Your task to perform on an android device: check android version Image 0: 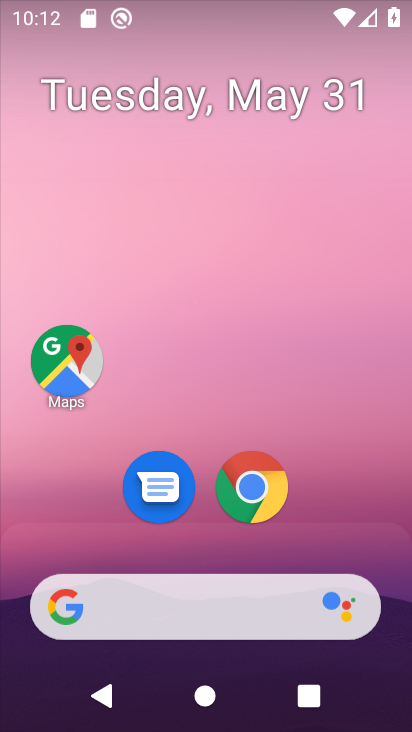
Step 0: drag from (76, 579) to (166, 73)
Your task to perform on an android device: check android version Image 1: 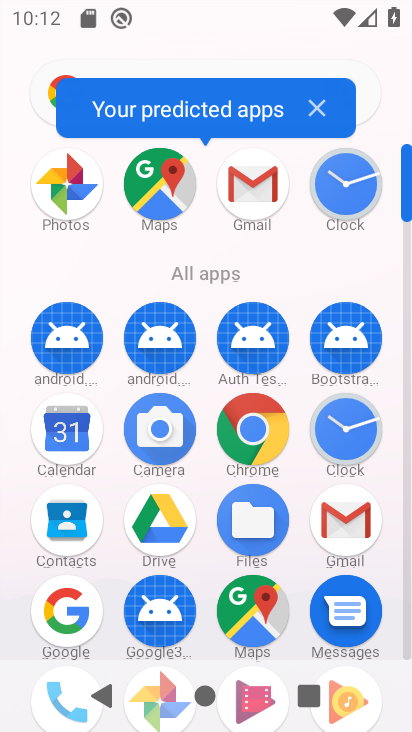
Step 1: drag from (106, 585) to (190, 280)
Your task to perform on an android device: check android version Image 2: 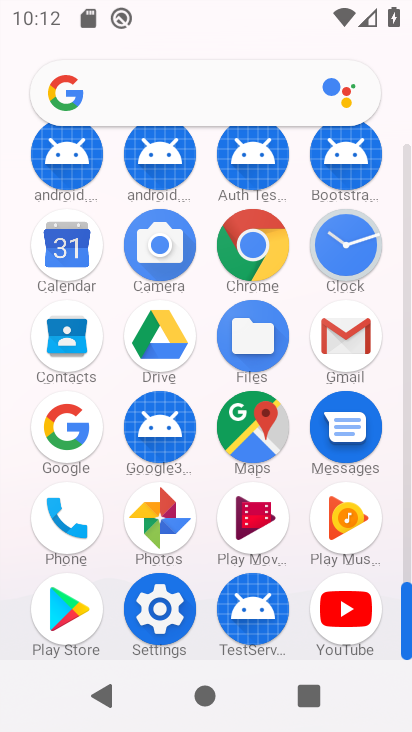
Step 2: click (172, 638)
Your task to perform on an android device: check android version Image 3: 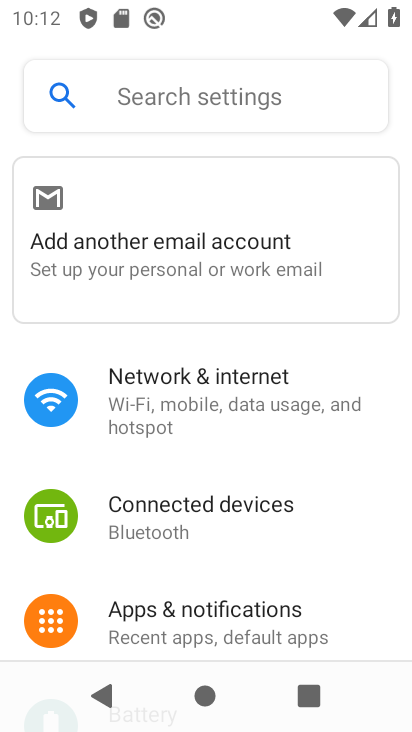
Step 3: drag from (178, 621) to (371, 96)
Your task to perform on an android device: check android version Image 4: 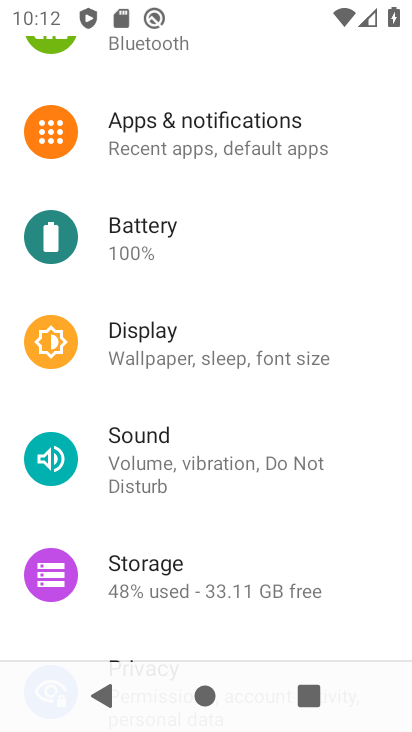
Step 4: drag from (250, 551) to (405, 15)
Your task to perform on an android device: check android version Image 5: 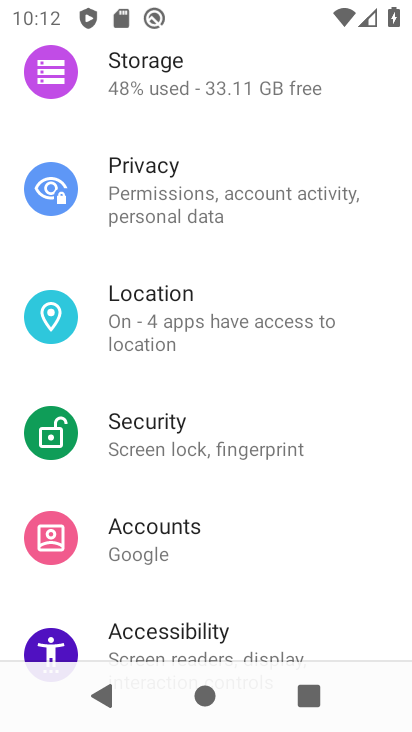
Step 5: drag from (112, 547) to (284, 10)
Your task to perform on an android device: check android version Image 6: 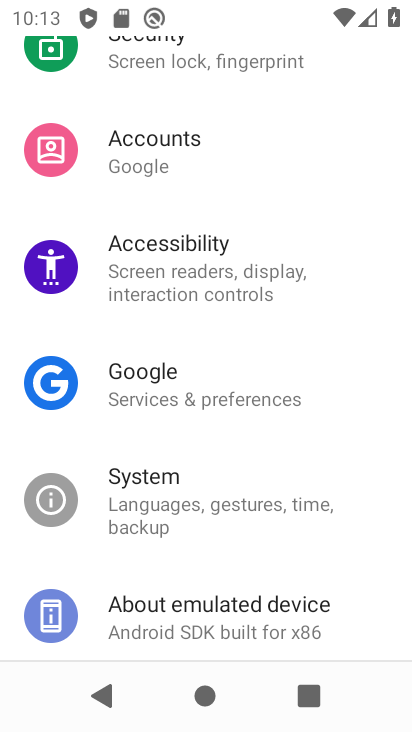
Step 6: click (171, 612)
Your task to perform on an android device: check android version Image 7: 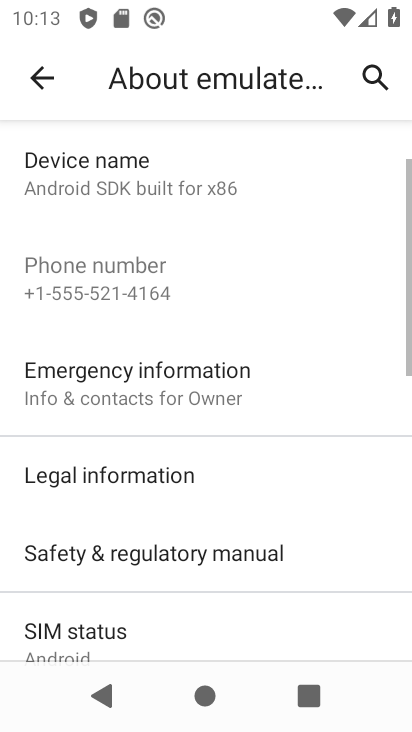
Step 7: drag from (171, 611) to (291, 134)
Your task to perform on an android device: check android version Image 8: 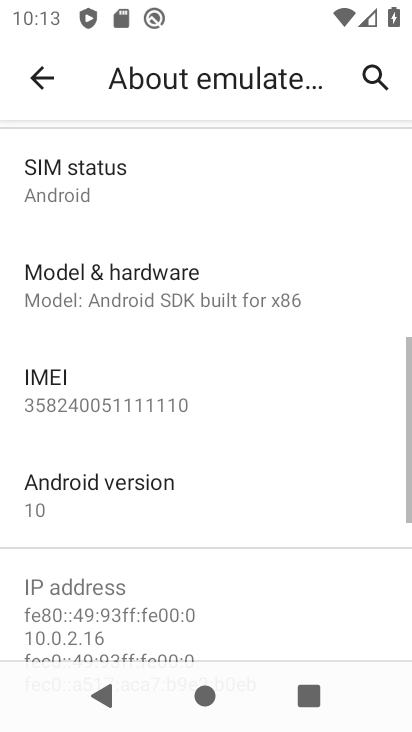
Step 8: click (145, 523)
Your task to perform on an android device: check android version Image 9: 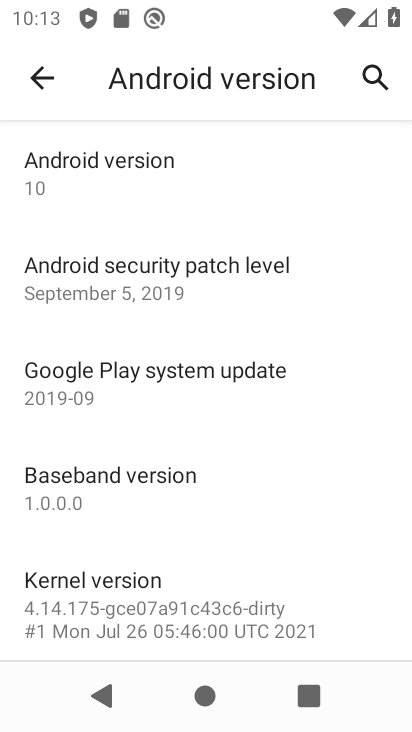
Step 9: task complete